Your task to perform on an android device: turn on data saver in the chrome app Image 0: 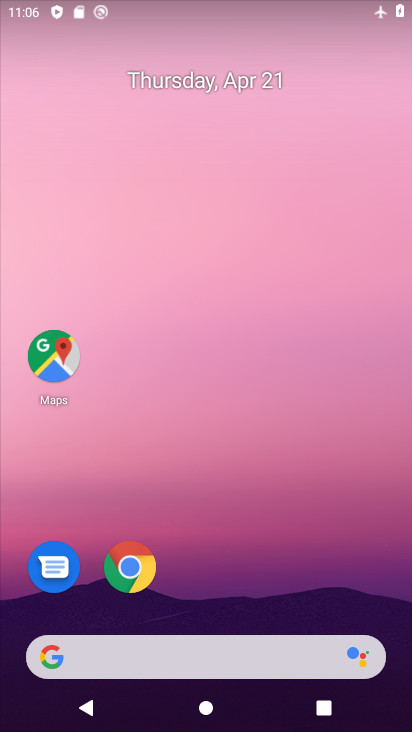
Step 0: click (135, 571)
Your task to perform on an android device: turn on data saver in the chrome app Image 1: 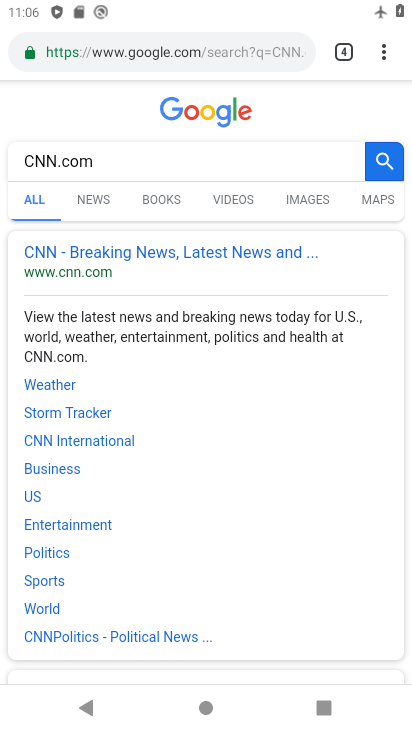
Step 1: click (379, 52)
Your task to perform on an android device: turn on data saver in the chrome app Image 2: 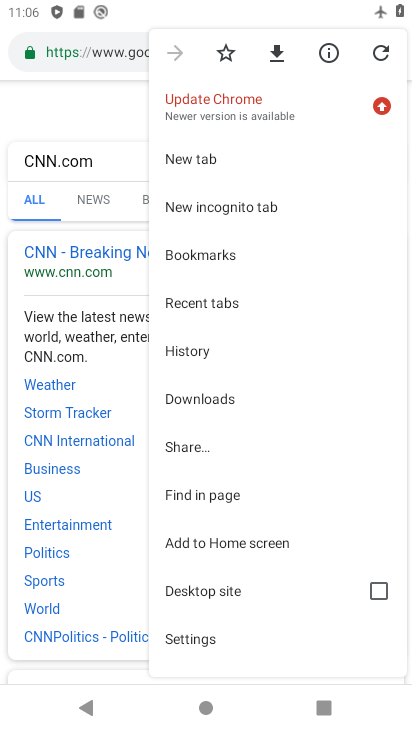
Step 2: click (186, 636)
Your task to perform on an android device: turn on data saver in the chrome app Image 3: 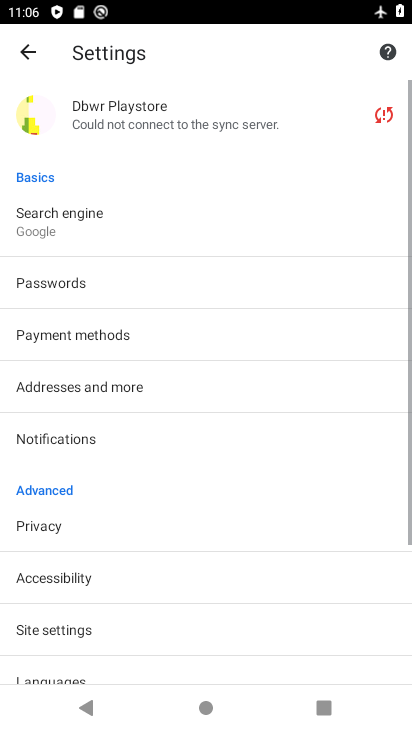
Step 3: drag from (104, 546) to (194, 155)
Your task to perform on an android device: turn on data saver in the chrome app Image 4: 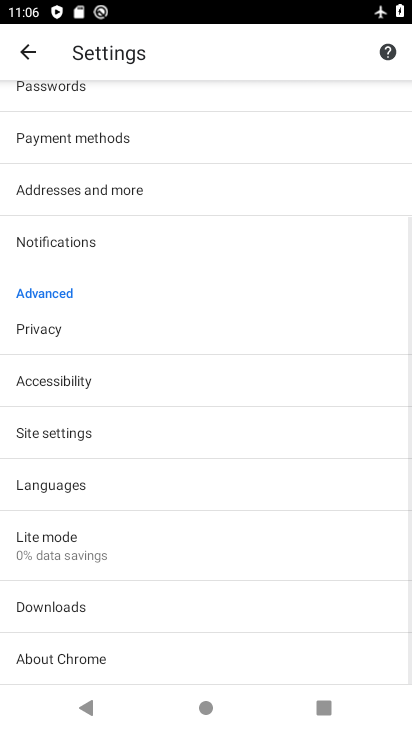
Step 4: click (83, 558)
Your task to perform on an android device: turn on data saver in the chrome app Image 5: 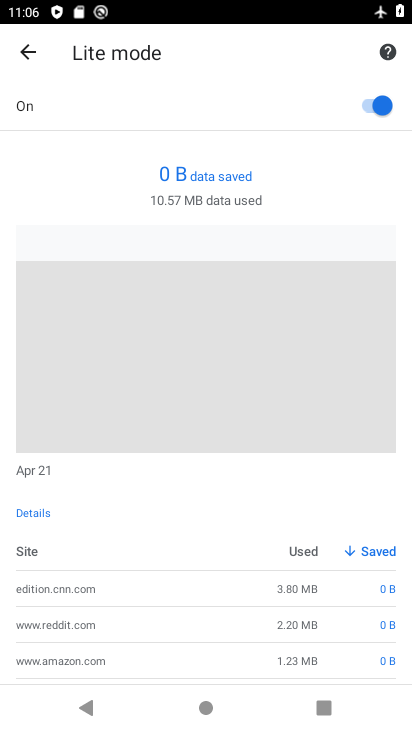
Step 5: task complete